Your task to perform on an android device: Open Google Maps Image 0: 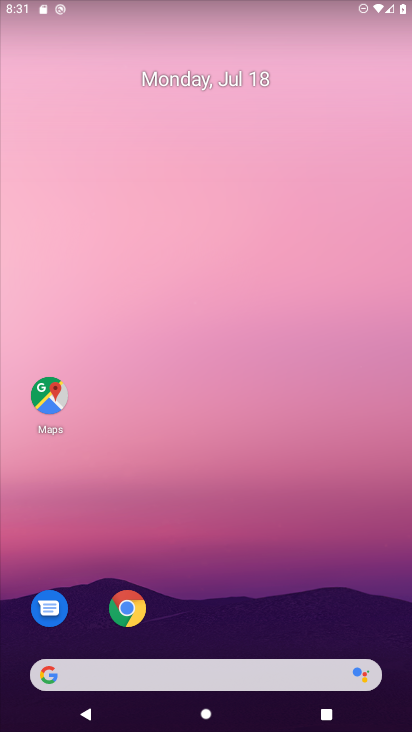
Step 0: click (40, 396)
Your task to perform on an android device: Open Google Maps Image 1: 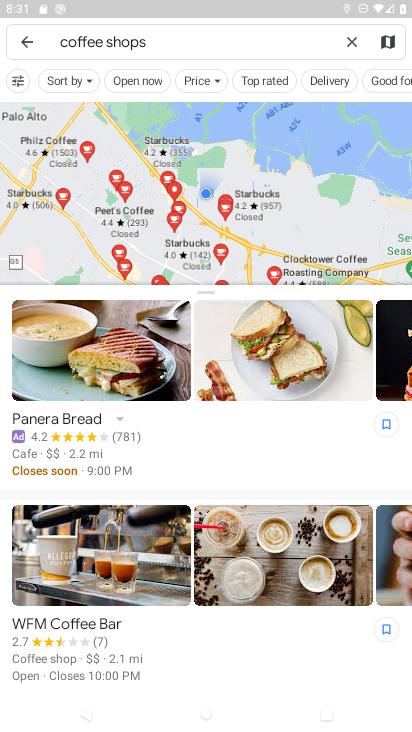
Step 1: click (23, 45)
Your task to perform on an android device: Open Google Maps Image 2: 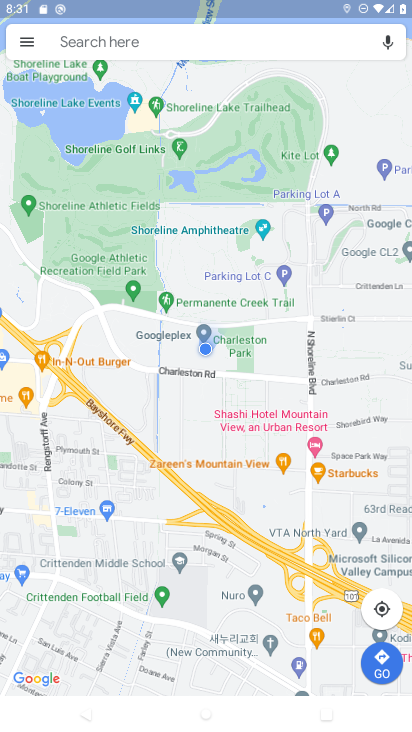
Step 2: task complete